Your task to perform on an android device: Check the weather Image 0: 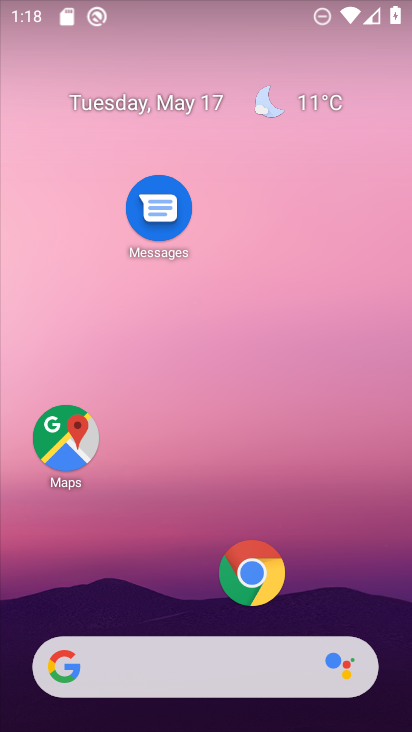
Step 0: click (314, 97)
Your task to perform on an android device: Check the weather Image 1: 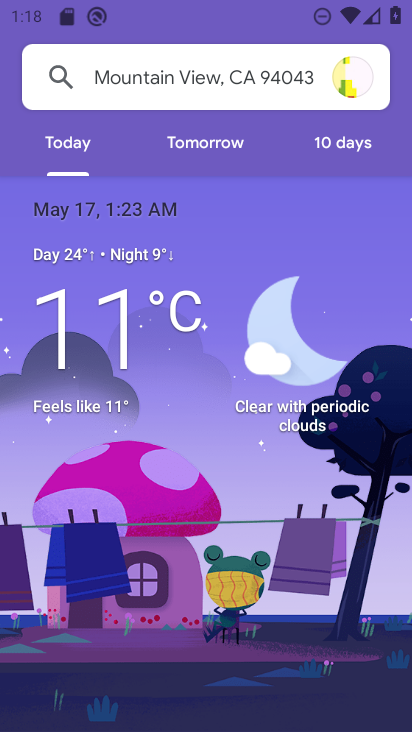
Step 1: task complete